Your task to perform on an android device: Open calendar and show me the second week of next month Image 0: 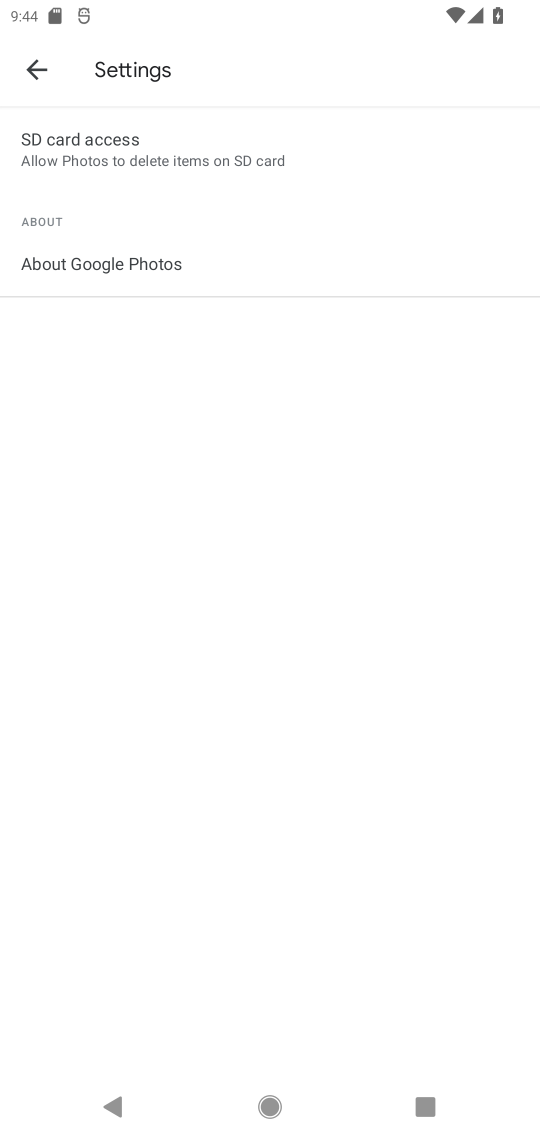
Step 0: press home button
Your task to perform on an android device: Open calendar and show me the second week of next month Image 1: 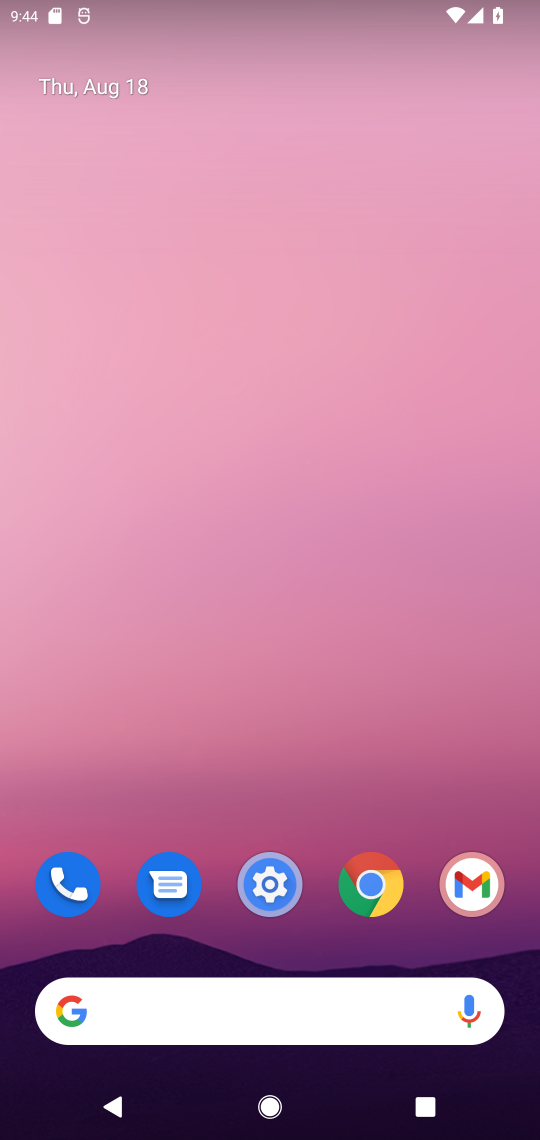
Step 1: click (87, 103)
Your task to perform on an android device: Open calendar and show me the second week of next month Image 2: 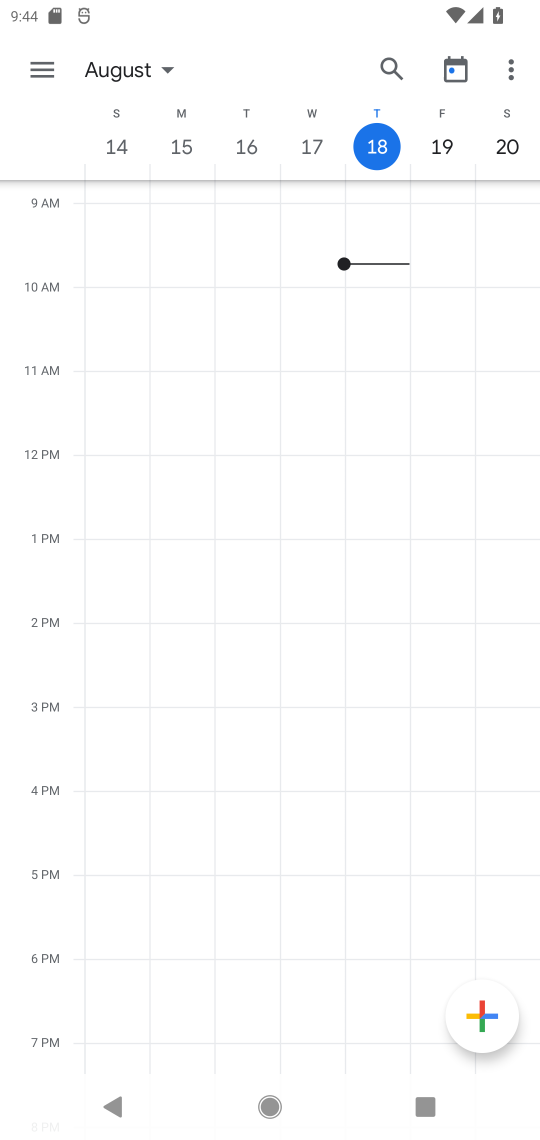
Step 2: click (114, 81)
Your task to perform on an android device: Open calendar and show me the second week of next month Image 3: 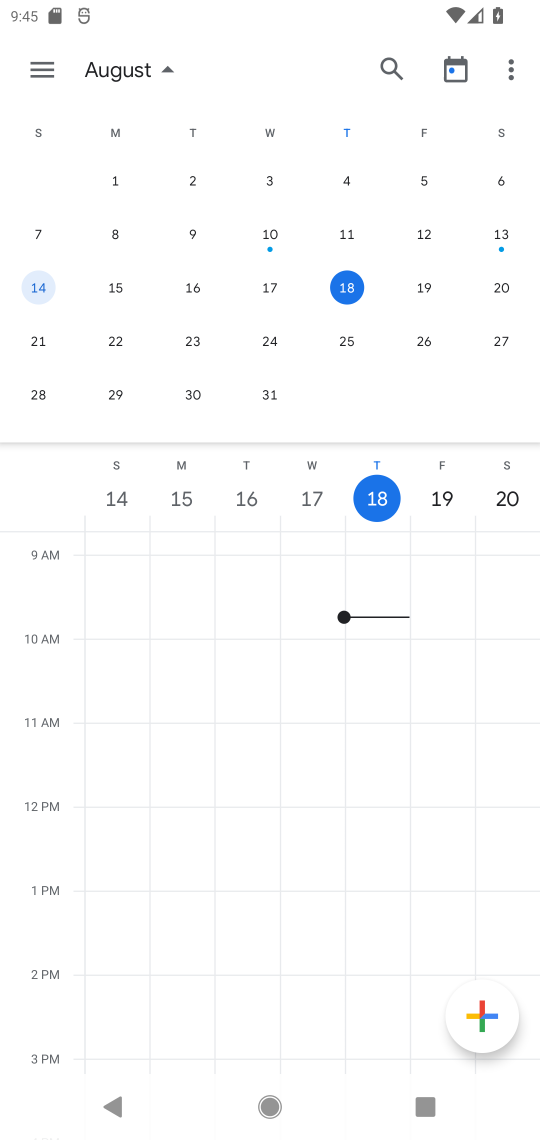
Step 3: drag from (446, 377) to (15, 395)
Your task to perform on an android device: Open calendar and show me the second week of next month Image 4: 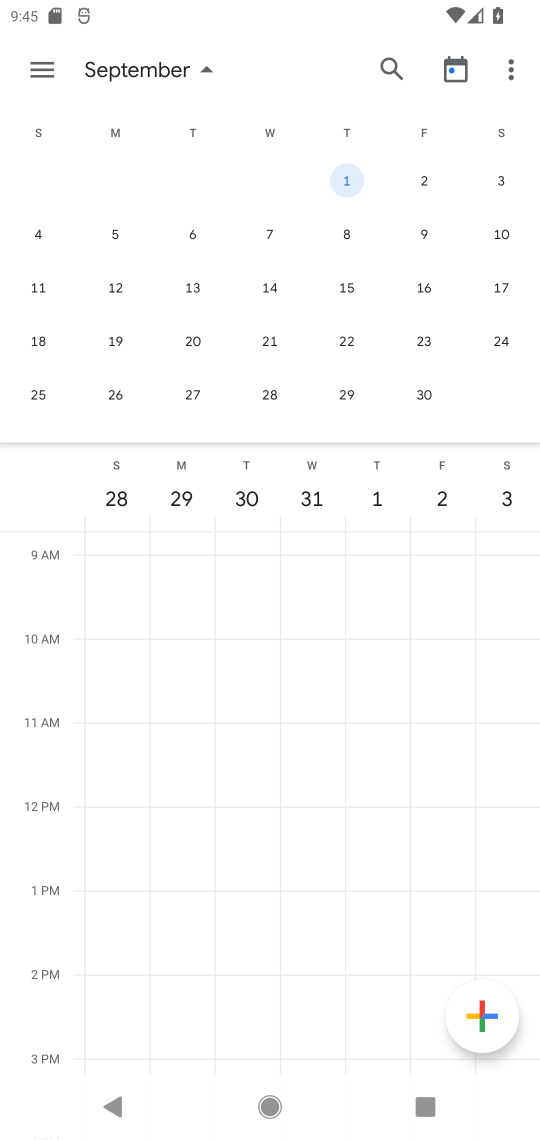
Step 4: click (425, 240)
Your task to perform on an android device: Open calendar and show me the second week of next month Image 5: 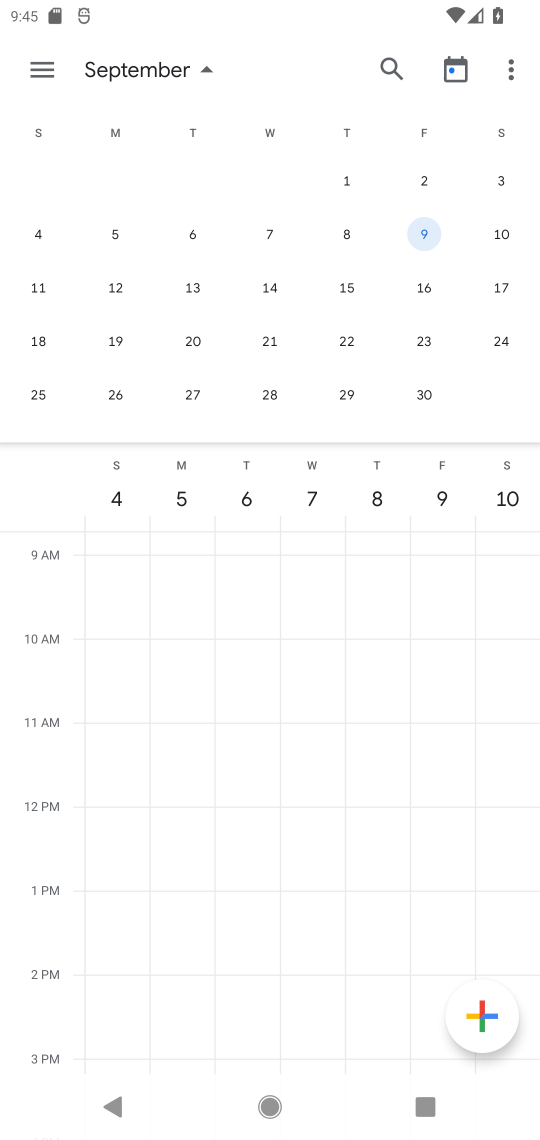
Step 5: task complete